Your task to perform on an android device: Open calendar and show me the first week of next month Image 0: 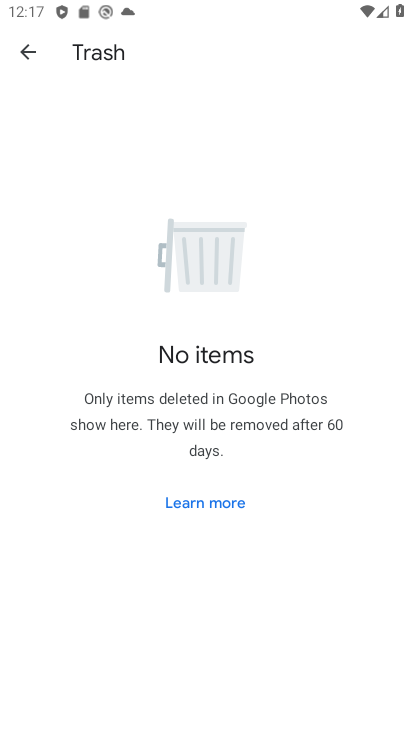
Step 0: press back button
Your task to perform on an android device: Open calendar and show me the first week of next month Image 1: 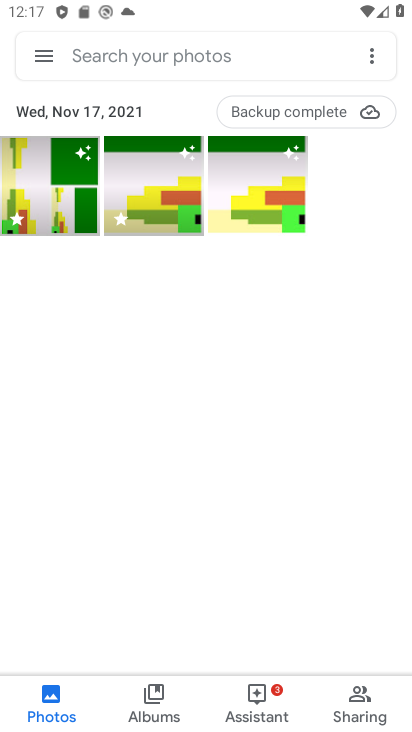
Step 1: press back button
Your task to perform on an android device: Open calendar and show me the first week of next month Image 2: 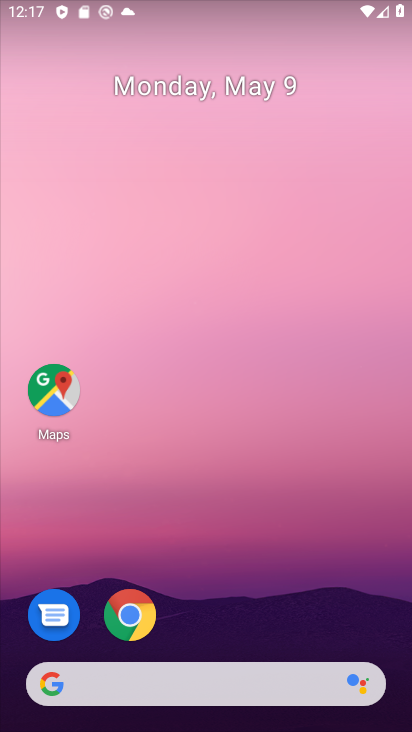
Step 2: drag from (218, 630) to (180, 74)
Your task to perform on an android device: Open calendar and show me the first week of next month Image 3: 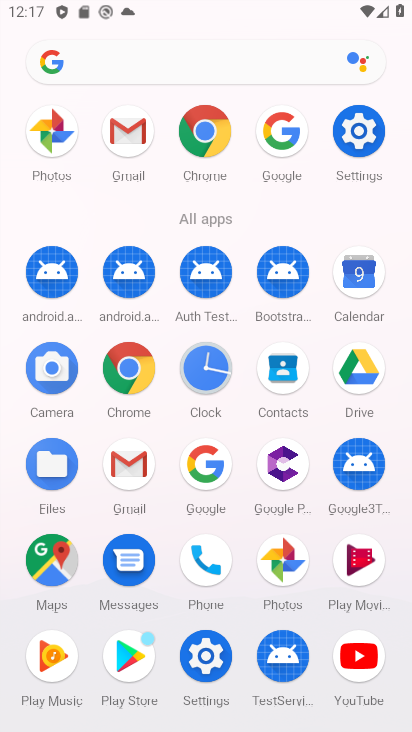
Step 3: click (356, 271)
Your task to perform on an android device: Open calendar and show me the first week of next month Image 4: 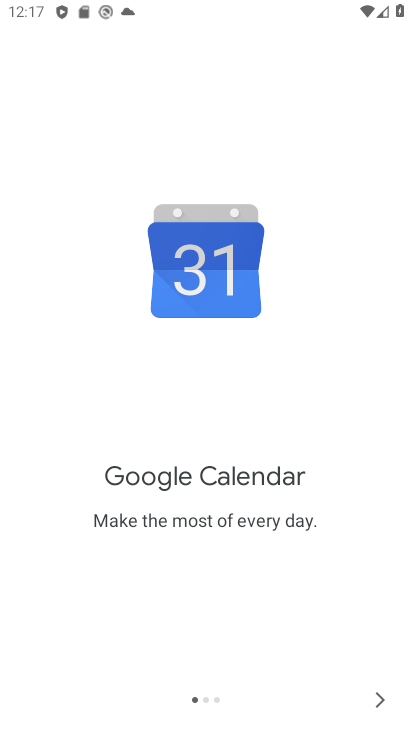
Step 4: click (379, 696)
Your task to perform on an android device: Open calendar and show me the first week of next month Image 5: 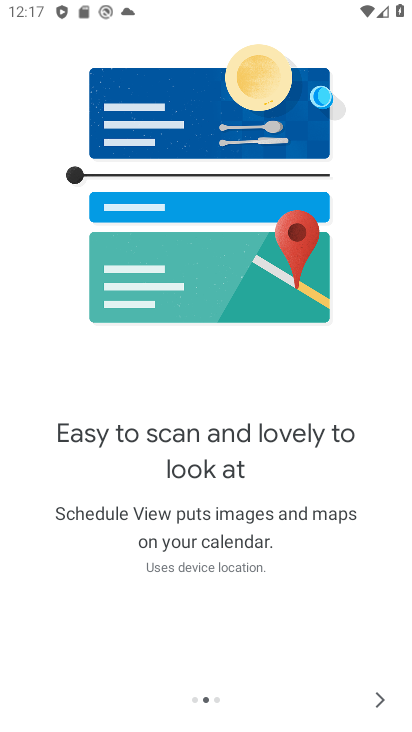
Step 5: click (372, 688)
Your task to perform on an android device: Open calendar and show me the first week of next month Image 6: 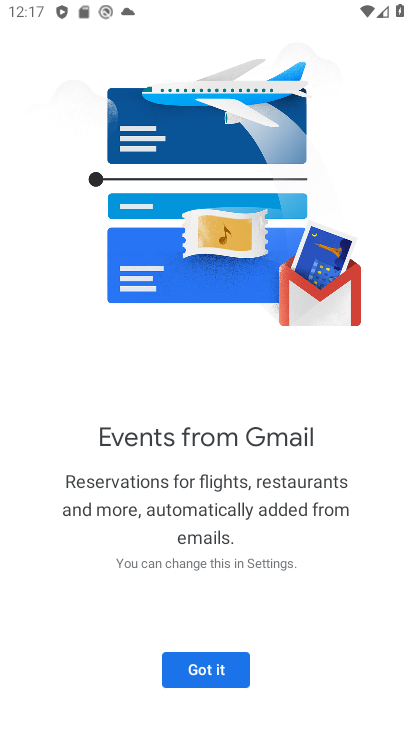
Step 6: click (197, 670)
Your task to perform on an android device: Open calendar and show me the first week of next month Image 7: 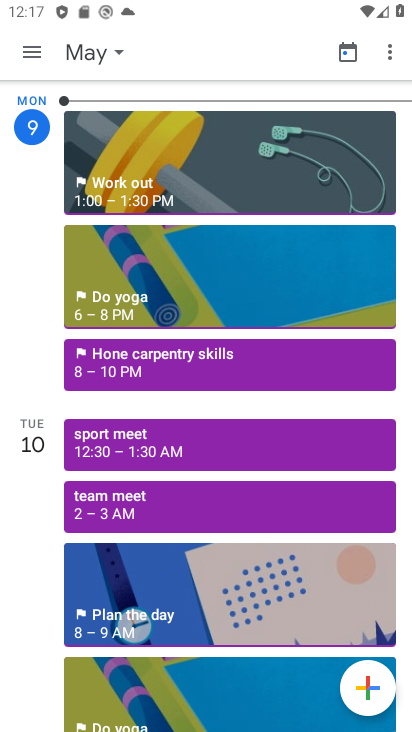
Step 7: click (111, 52)
Your task to perform on an android device: Open calendar and show me the first week of next month Image 8: 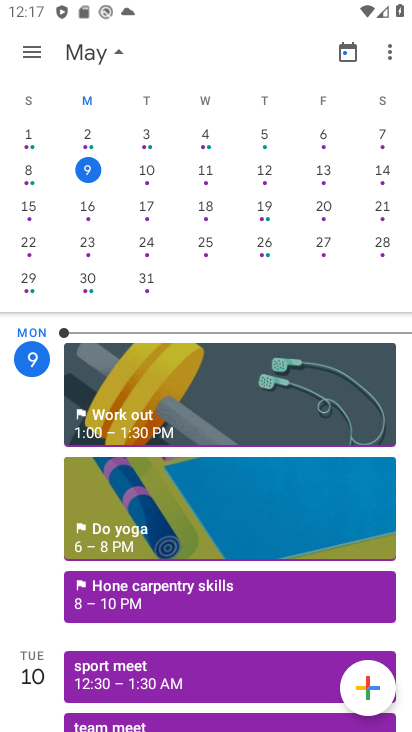
Step 8: drag from (348, 214) to (4, 240)
Your task to perform on an android device: Open calendar and show me the first week of next month Image 9: 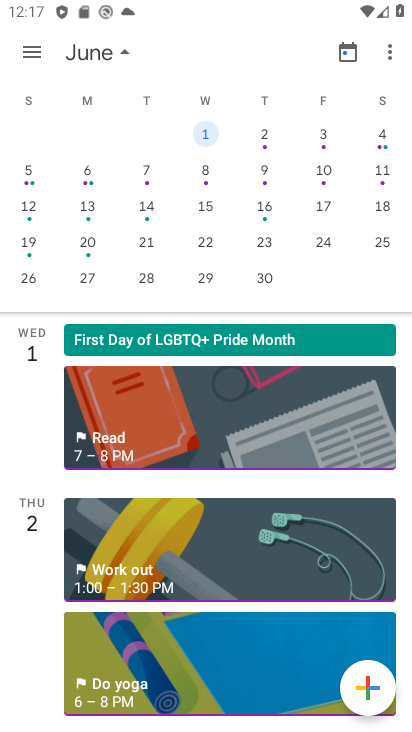
Step 9: click (85, 173)
Your task to perform on an android device: Open calendar and show me the first week of next month Image 10: 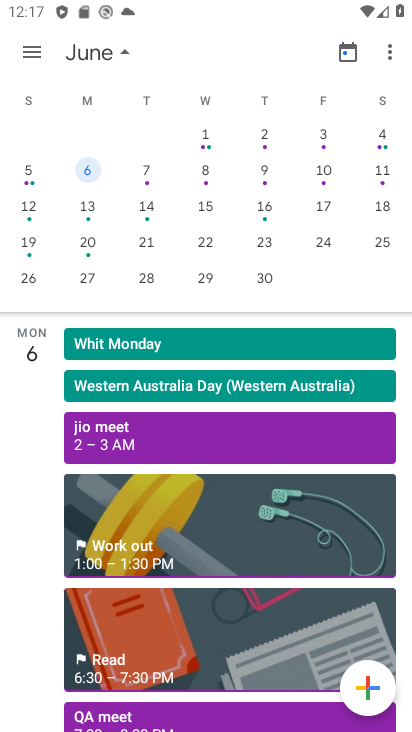
Step 10: click (35, 63)
Your task to perform on an android device: Open calendar and show me the first week of next month Image 11: 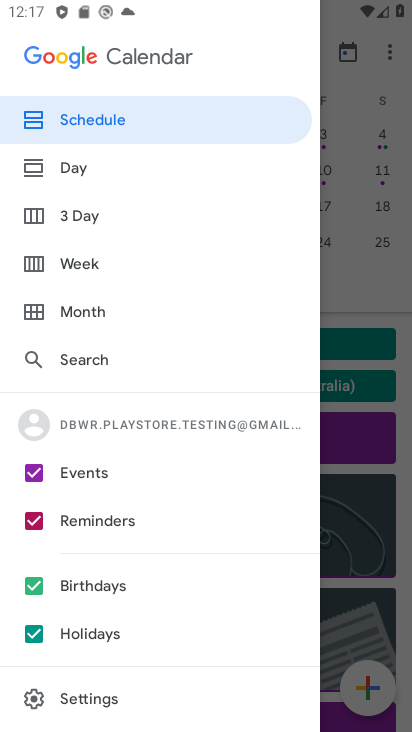
Step 11: click (82, 266)
Your task to perform on an android device: Open calendar and show me the first week of next month Image 12: 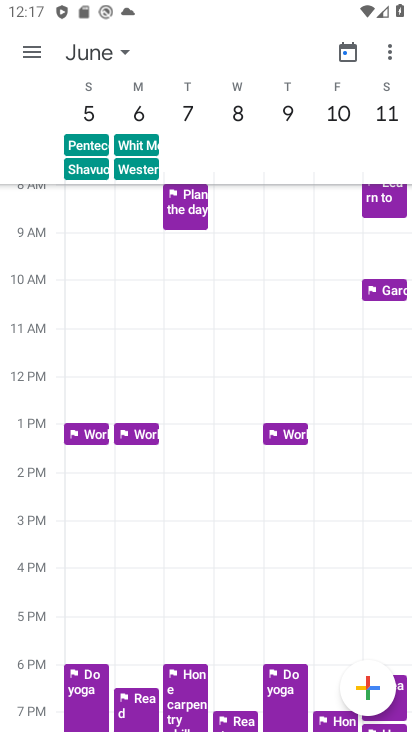
Step 12: task complete